Your task to perform on an android device: Open calendar and show me the second week of next month Image 0: 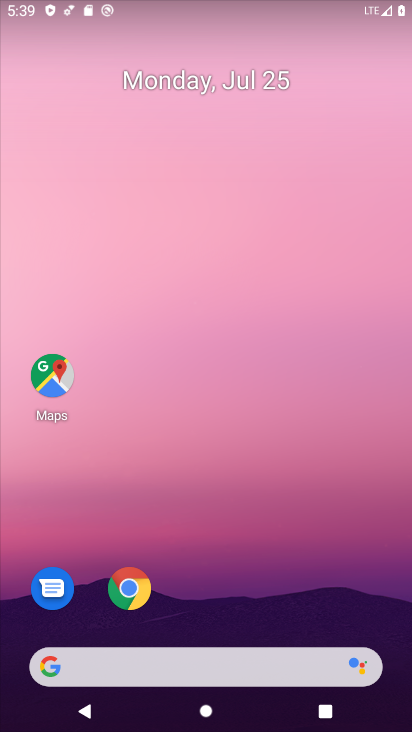
Step 0: drag from (193, 674) to (200, 48)
Your task to perform on an android device: Open calendar and show me the second week of next month Image 1: 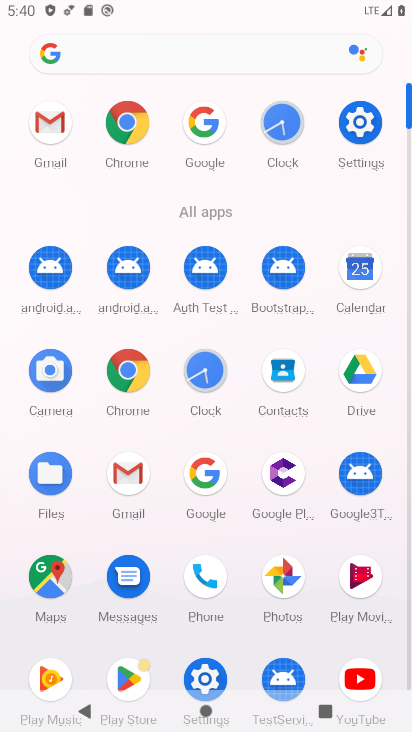
Step 1: click (361, 270)
Your task to perform on an android device: Open calendar and show me the second week of next month Image 2: 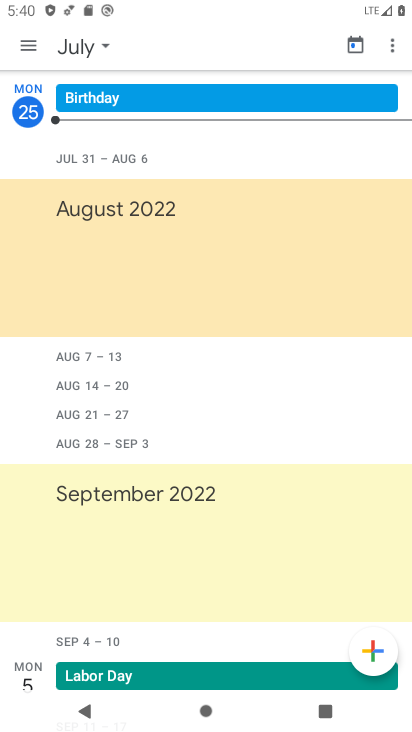
Step 2: click (356, 47)
Your task to perform on an android device: Open calendar and show me the second week of next month Image 3: 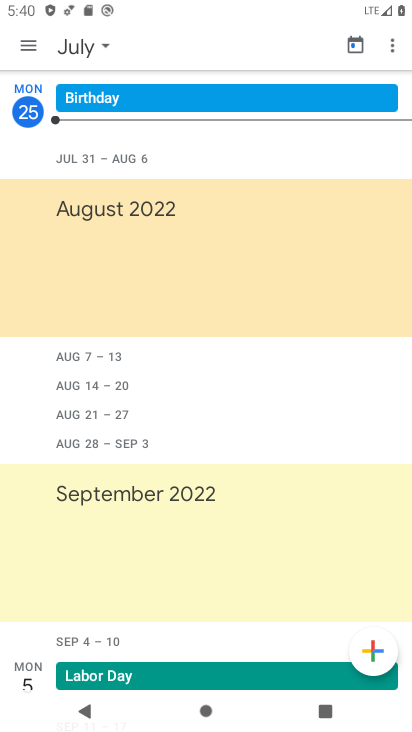
Step 3: click (105, 47)
Your task to perform on an android device: Open calendar and show me the second week of next month Image 4: 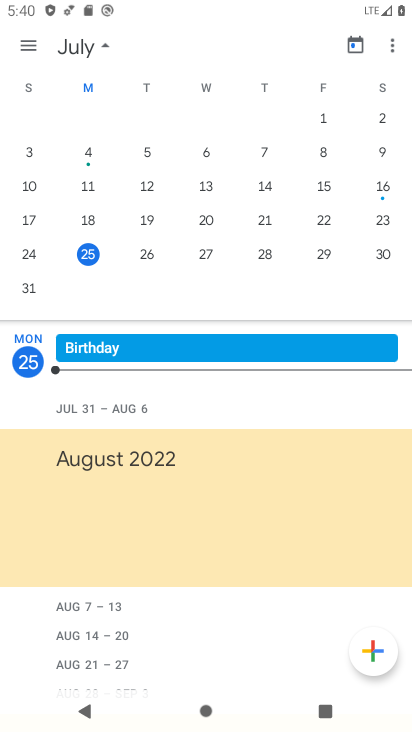
Step 4: drag from (365, 234) to (9, 283)
Your task to perform on an android device: Open calendar and show me the second week of next month Image 5: 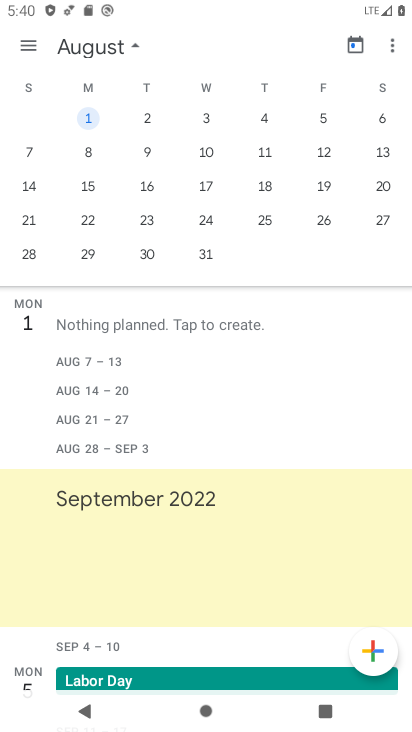
Step 5: click (84, 147)
Your task to perform on an android device: Open calendar and show me the second week of next month Image 6: 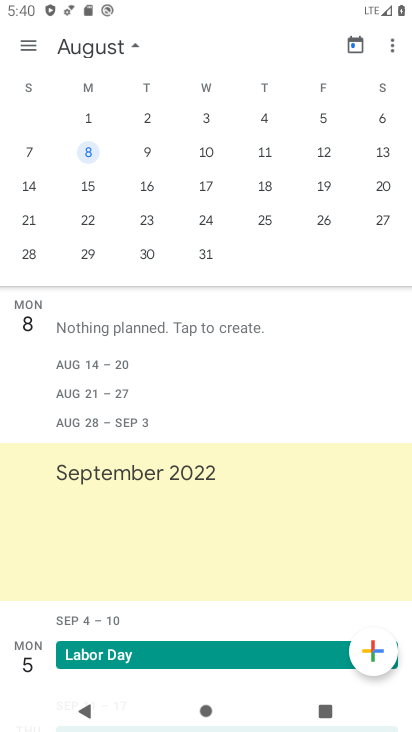
Step 6: click (20, 46)
Your task to perform on an android device: Open calendar and show me the second week of next month Image 7: 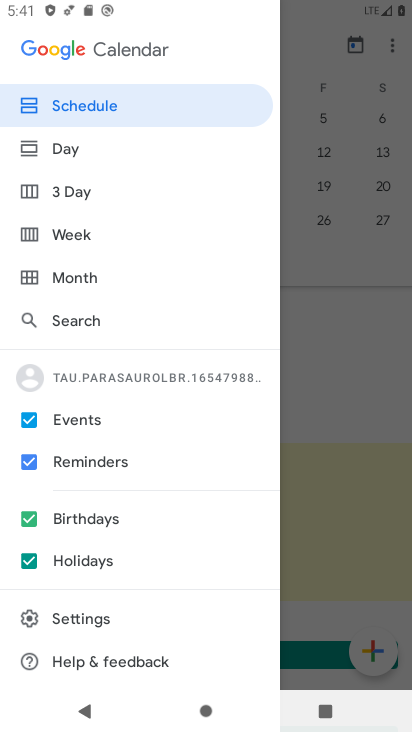
Step 7: click (79, 239)
Your task to perform on an android device: Open calendar and show me the second week of next month Image 8: 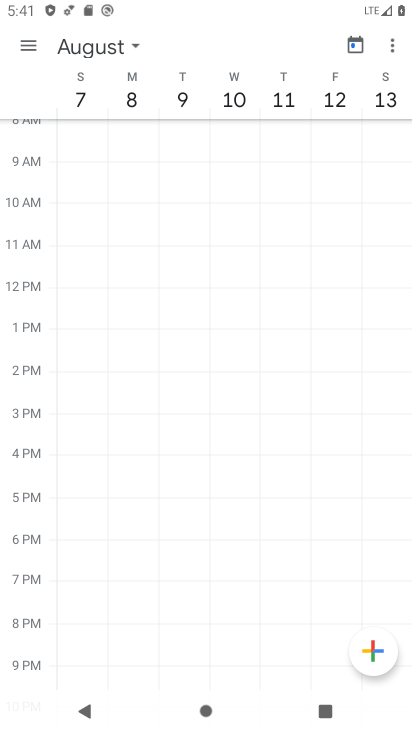
Step 8: task complete